Your task to perform on an android device: turn vacation reply on in the gmail app Image 0: 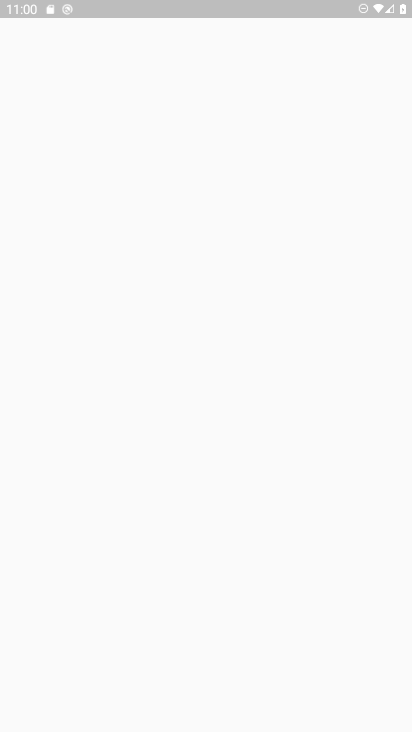
Step 0: press home button
Your task to perform on an android device: turn vacation reply on in the gmail app Image 1: 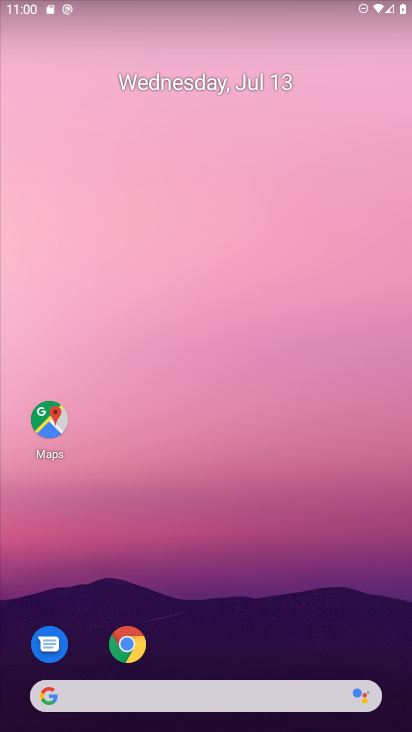
Step 1: drag from (207, 532) to (210, 130)
Your task to perform on an android device: turn vacation reply on in the gmail app Image 2: 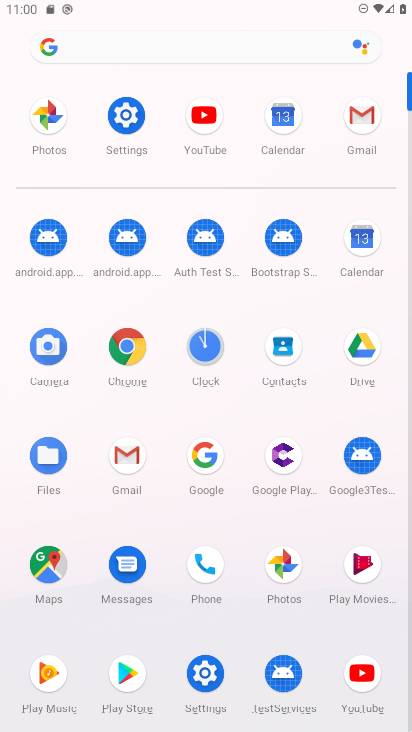
Step 2: click (361, 111)
Your task to perform on an android device: turn vacation reply on in the gmail app Image 3: 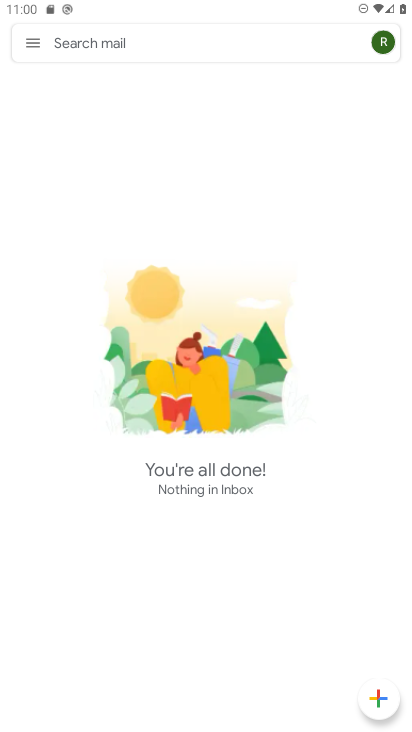
Step 3: click (29, 40)
Your task to perform on an android device: turn vacation reply on in the gmail app Image 4: 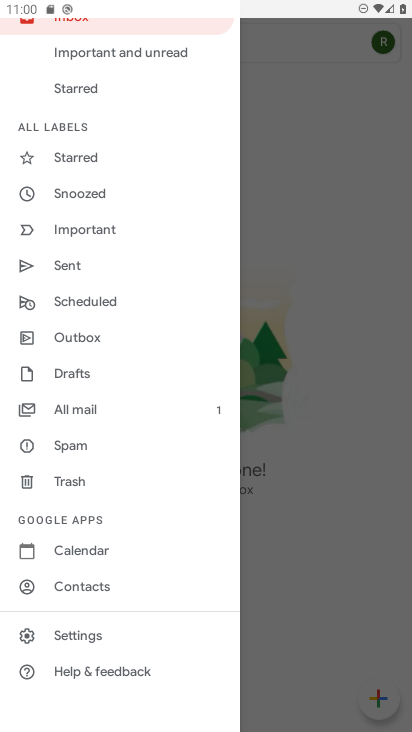
Step 4: click (88, 641)
Your task to perform on an android device: turn vacation reply on in the gmail app Image 5: 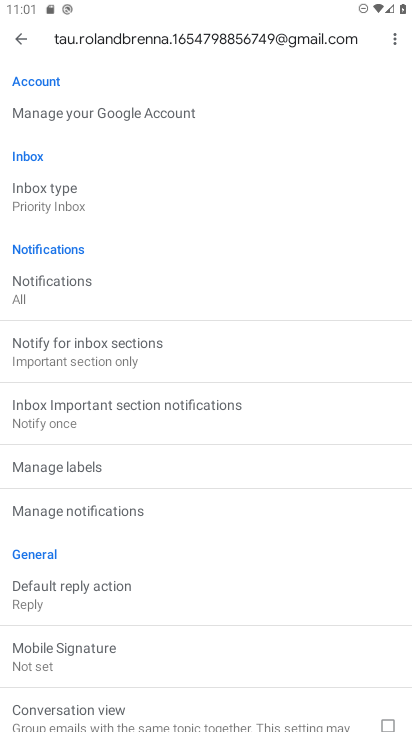
Step 5: drag from (173, 616) to (185, 279)
Your task to perform on an android device: turn vacation reply on in the gmail app Image 6: 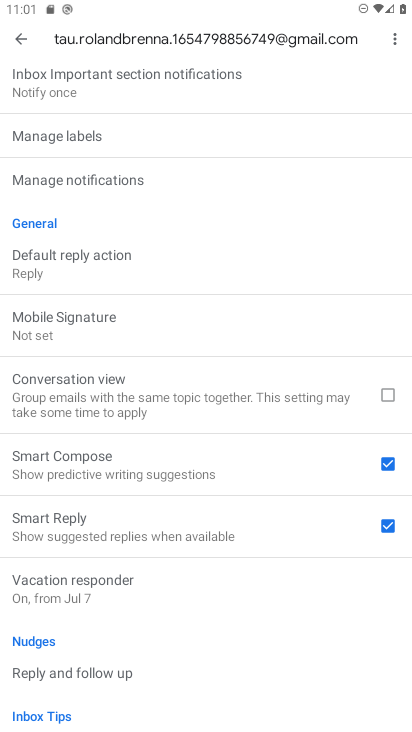
Step 6: click (70, 581)
Your task to perform on an android device: turn vacation reply on in the gmail app Image 7: 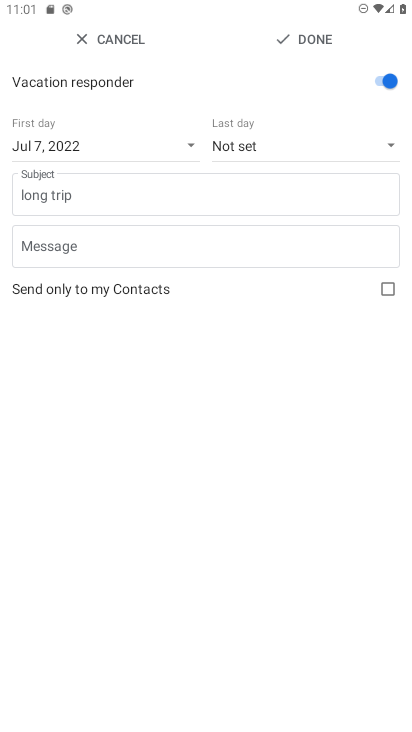
Step 7: task complete